Your task to perform on an android device: What's the weather going to be this weekend? Image 0: 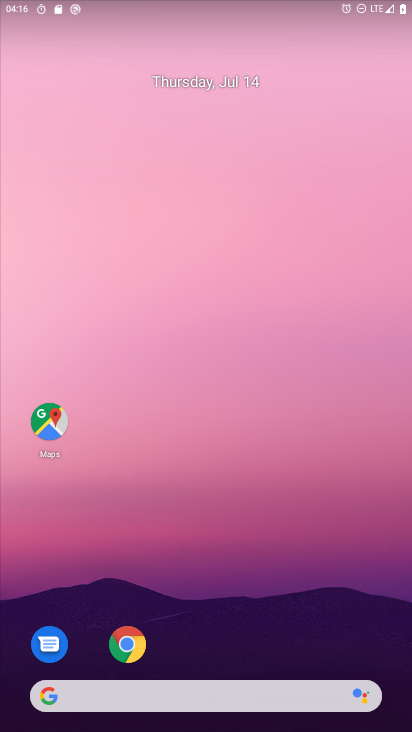
Step 0: drag from (279, 622) to (70, 8)
Your task to perform on an android device: What's the weather going to be this weekend? Image 1: 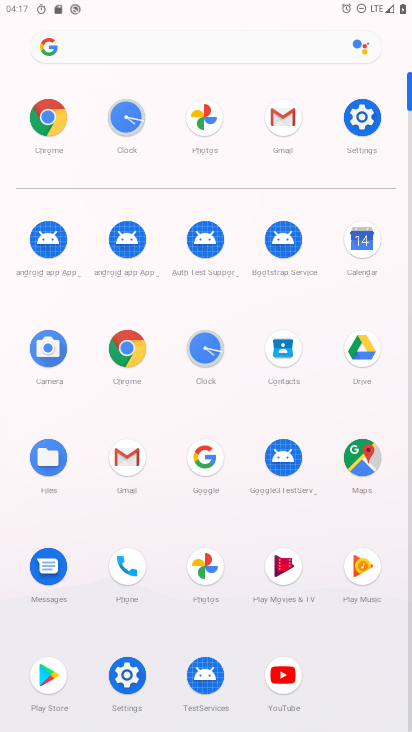
Step 1: click (123, 345)
Your task to perform on an android device: What's the weather going to be this weekend? Image 2: 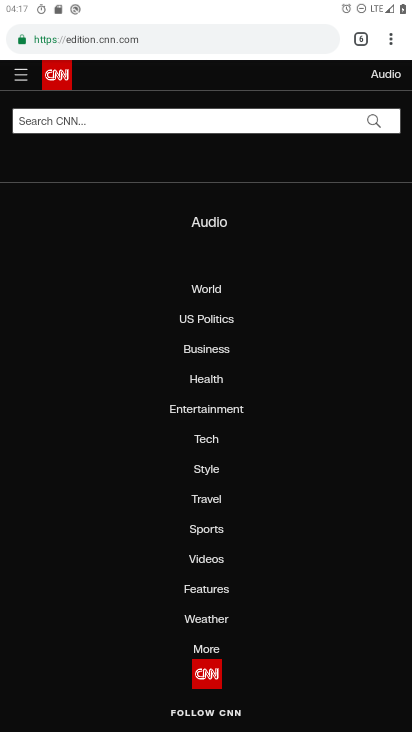
Step 2: click (231, 36)
Your task to perform on an android device: What's the weather going to be this weekend? Image 3: 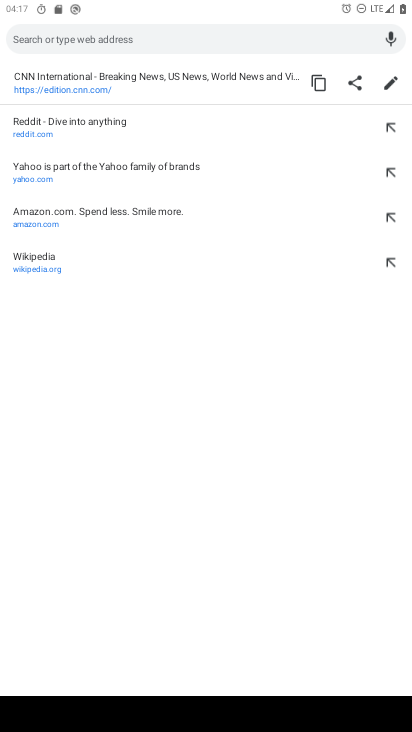
Step 3: type "weather"
Your task to perform on an android device: What's the weather going to be this weekend? Image 4: 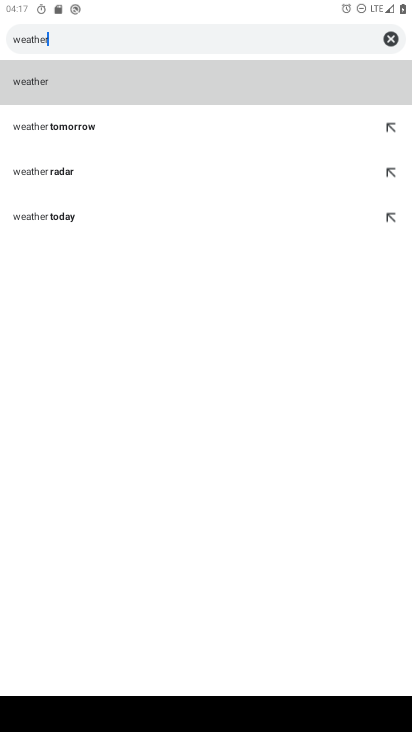
Step 4: click (83, 78)
Your task to perform on an android device: What's the weather going to be this weekend? Image 5: 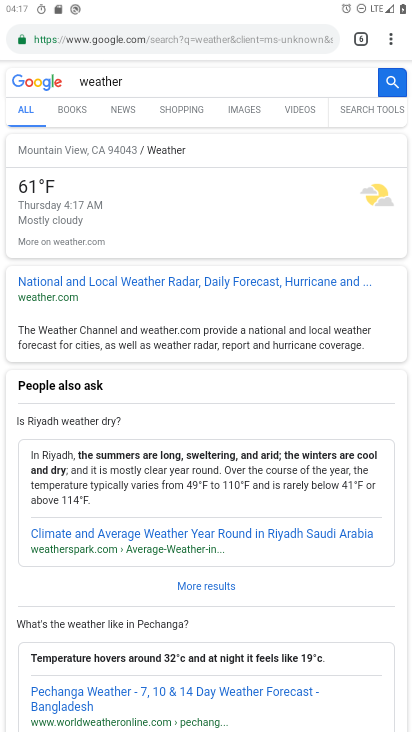
Step 5: click (63, 292)
Your task to perform on an android device: What's the weather going to be this weekend? Image 6: 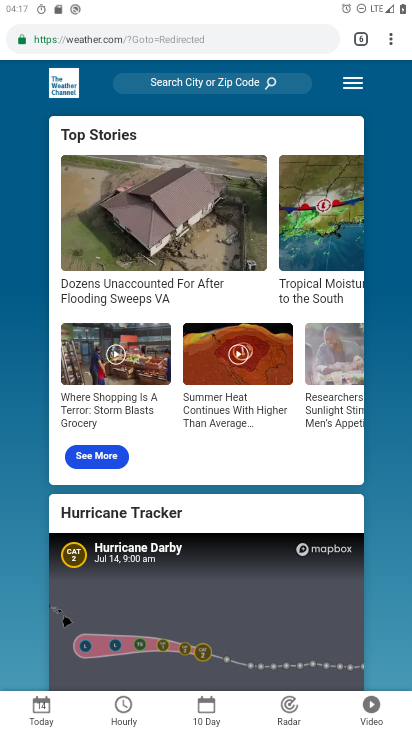
Step 6: click (54, 700)
Your task to perform on an android device: What's the weather going to be this weekend? Image 7: 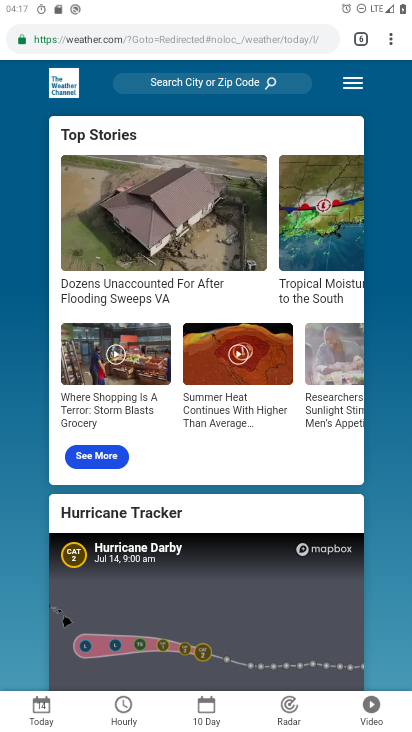
Step 7: click (131, 708)
Your task to perform on an android device: What's the weather going to be this weekend? Image 8: 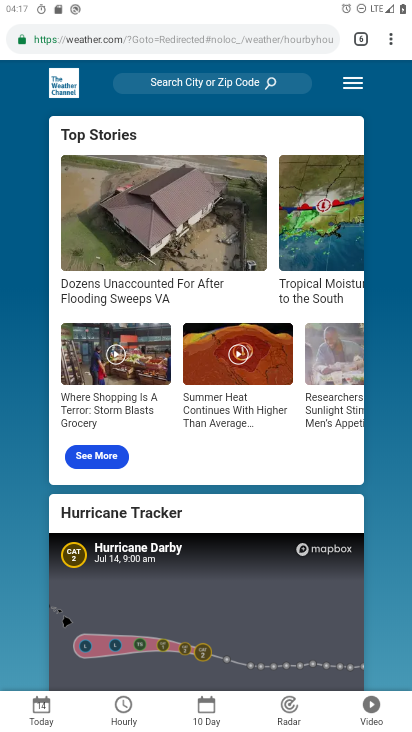
Step 8: click (201, 712)
Your task to perform on an android device: What's the weather going to be this weekend? Image 9: 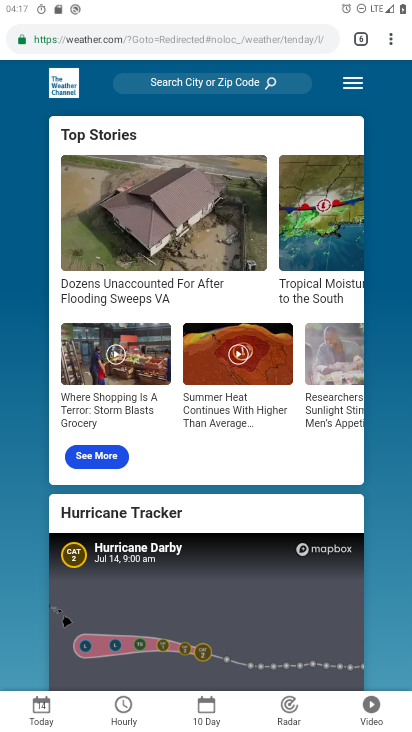
Step 9: click (358, 88)
Your task to perform on an android device: What's the weather going to be this weekend? Image 10: 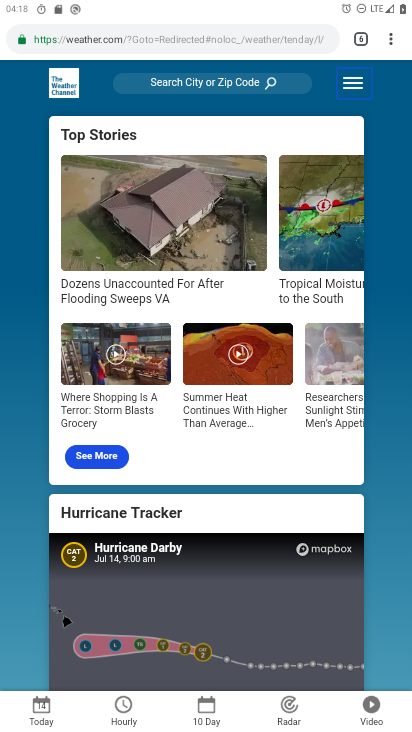
Step 10: click (356, 87)
Your task to perform on an android device: What's the weather going to be this weekend? Image 11: 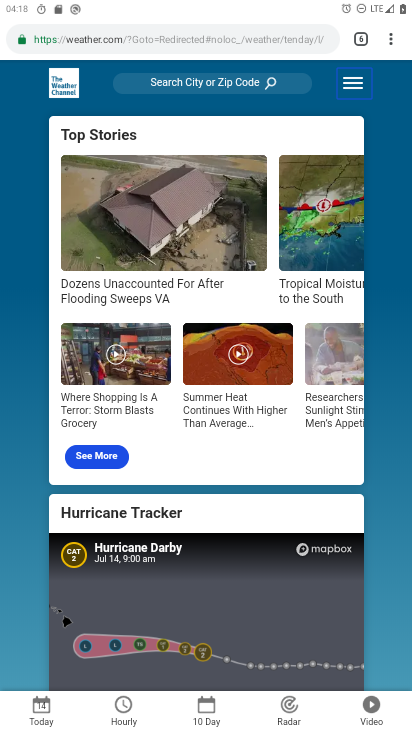
Step 11: task complete